Your task to perform on an android device: Play the new Beyonce video on YouTube Image 0: 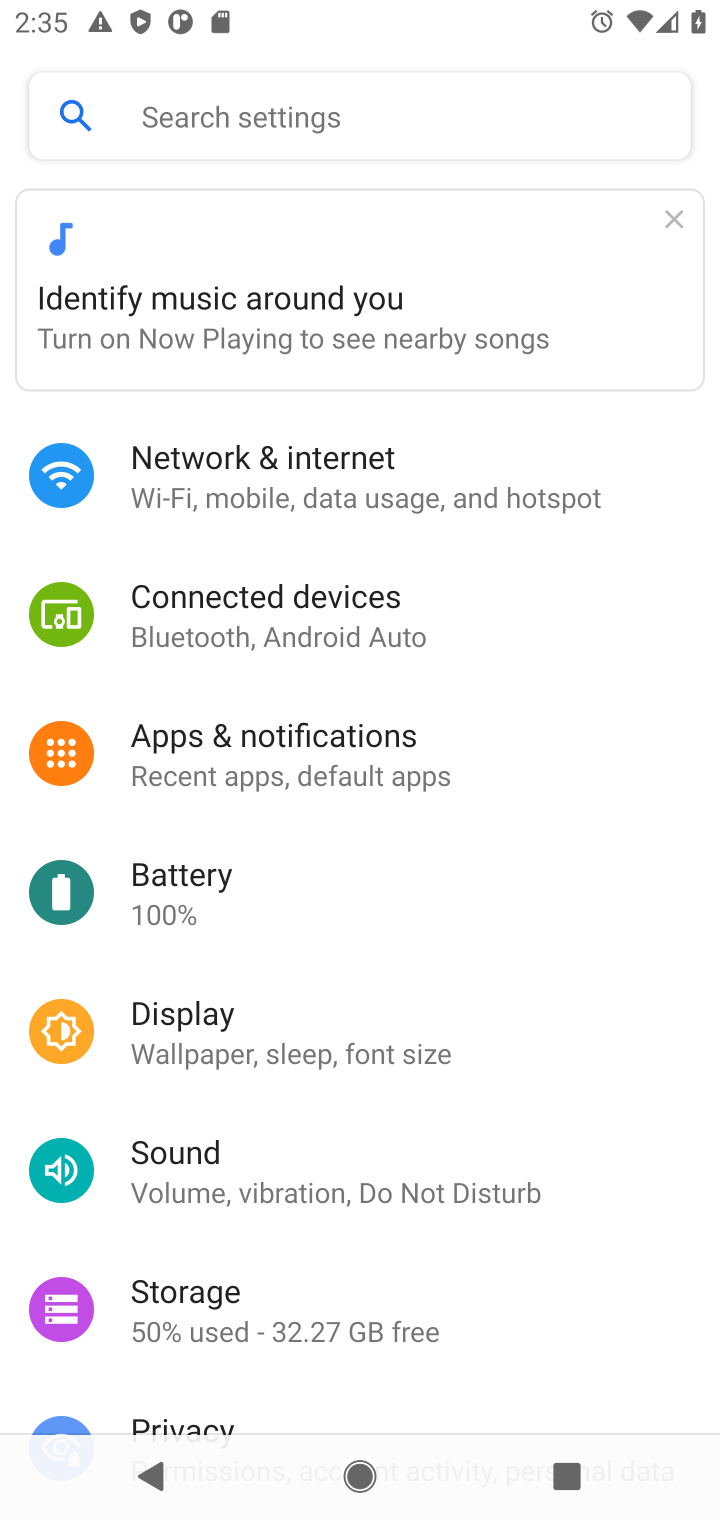
Step 0: press home button
Your task to perform on an android device: Play the new Beyonce video on YouTube Image 1: 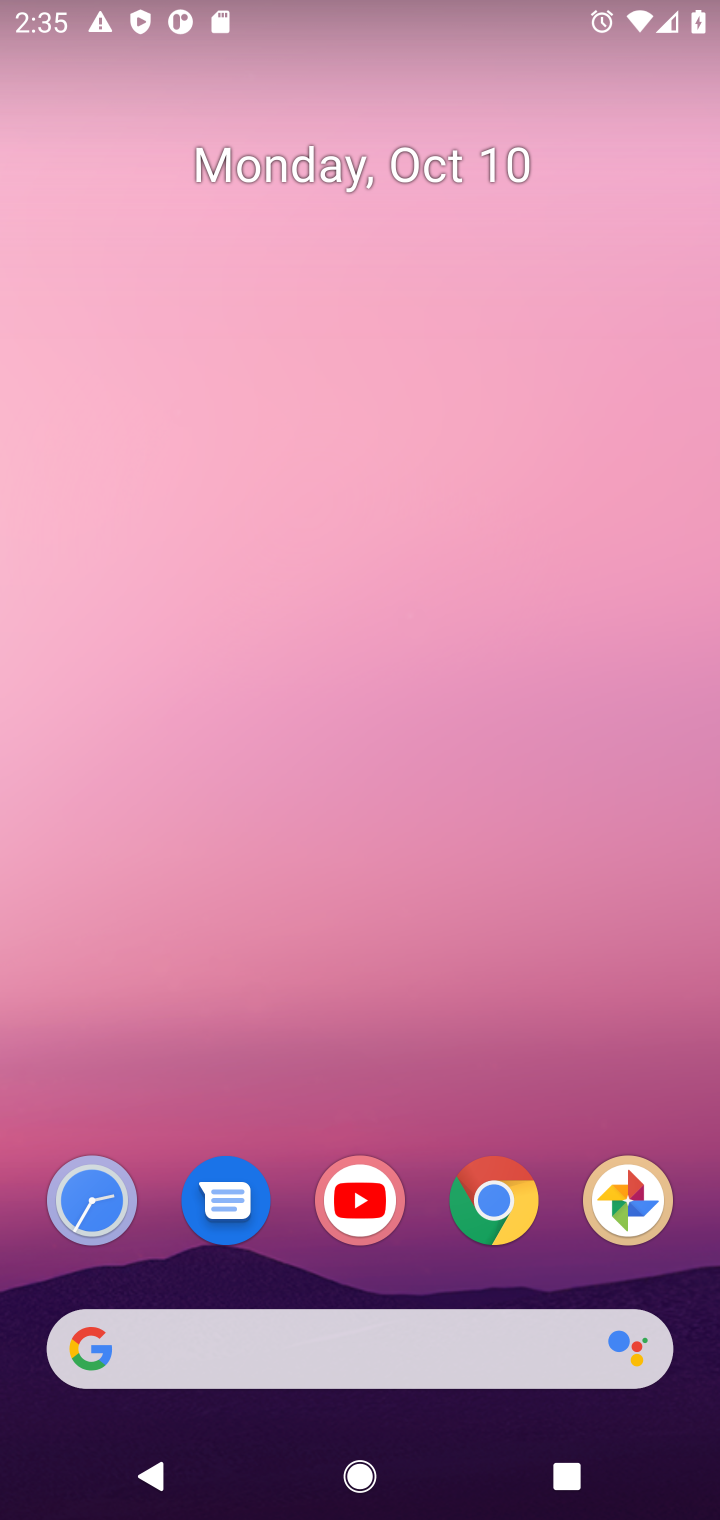
Step 1: click (493, 1209)
Your task to perform on an android device: Play the new Beyonce video on YouTube Image 2: 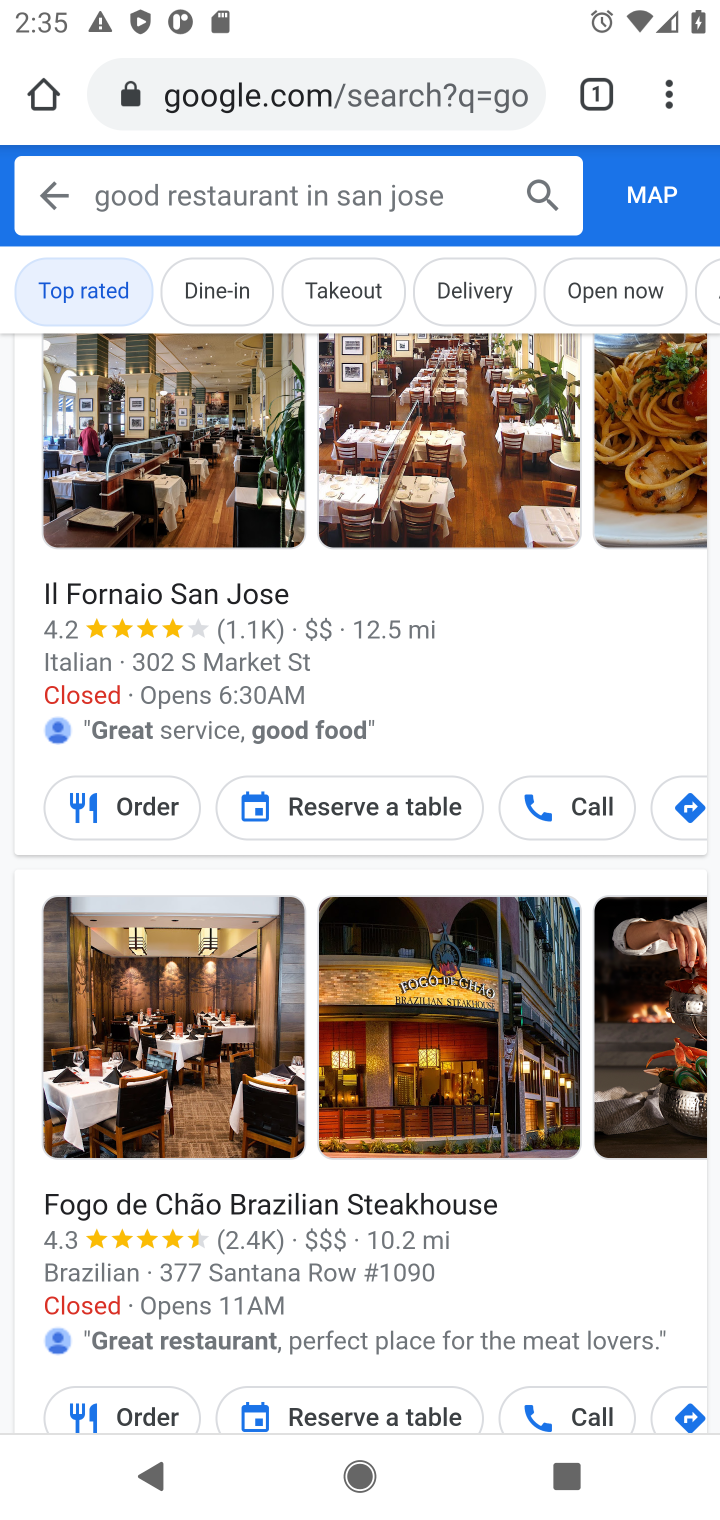
Step 2: click (377, 1471)
Your task to perform on an android device: Play the new Beyonce video on YouTube Image 3: 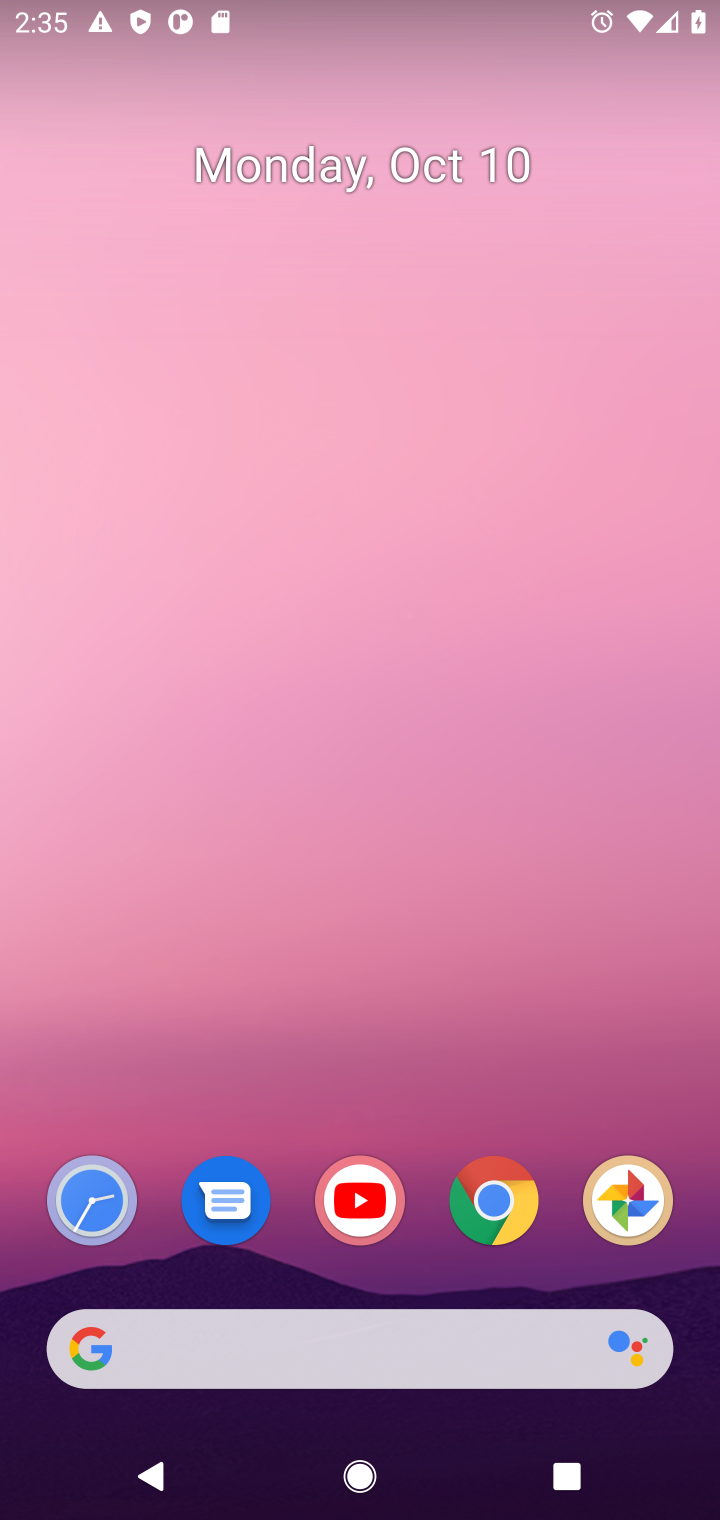
Step 3: click (367, 1189)
Your task to perform on an android device: Play the new Beyonce video on YouTube Image 4: 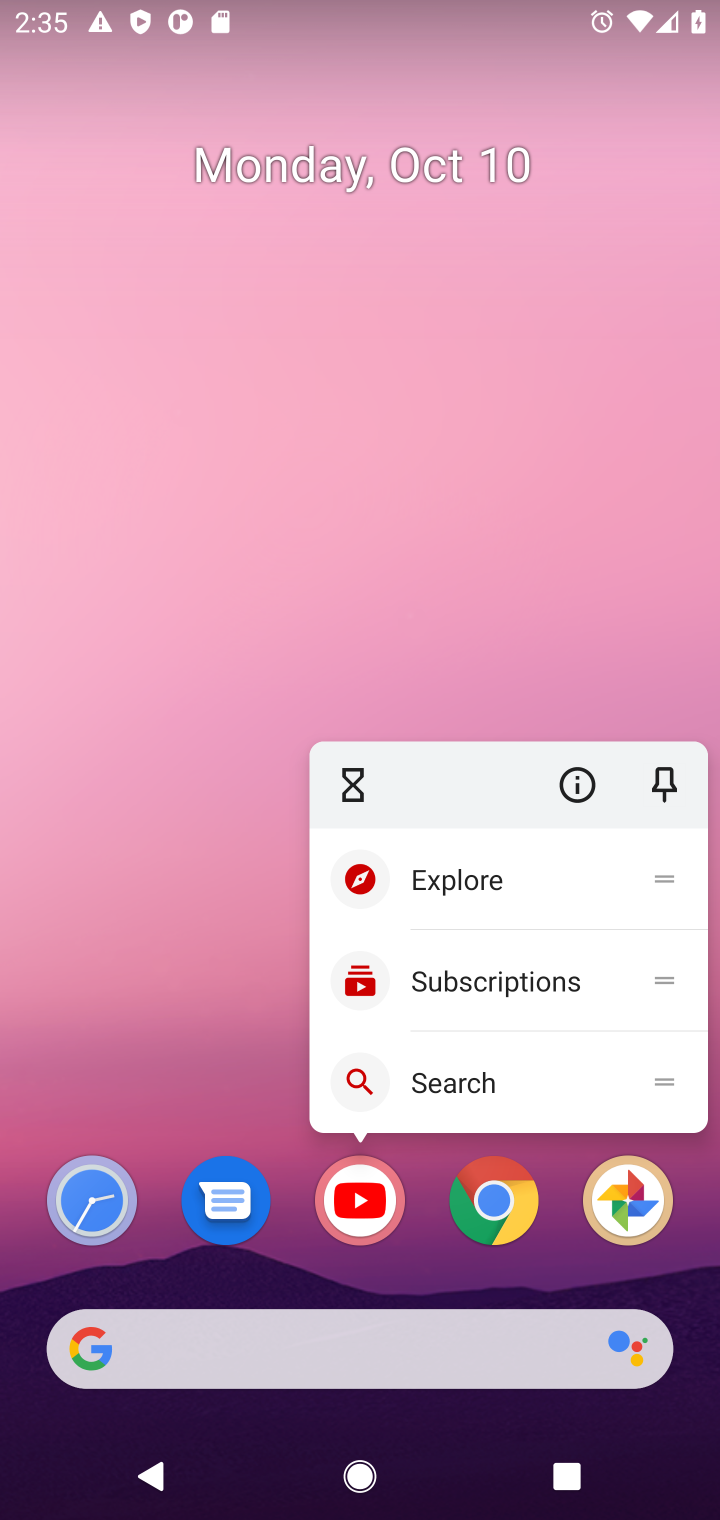
Step 4: click (361, 1215)
Your task to perform on an android device: Play the new Beyonce video on YouTube Image 5: 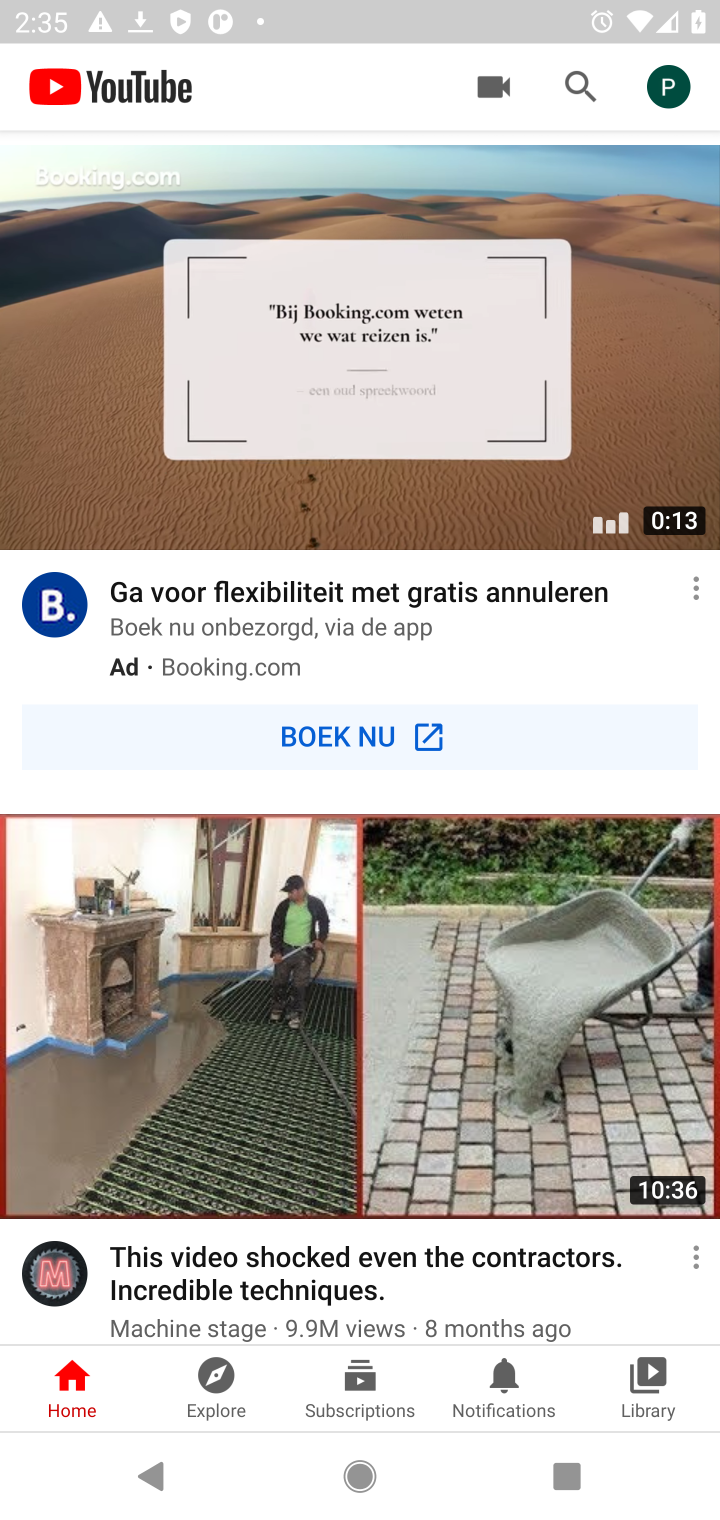
Step 5: click (567, 90)
Your task to perform on an android device: Play the new Beyonce video on YouTube Image 6: 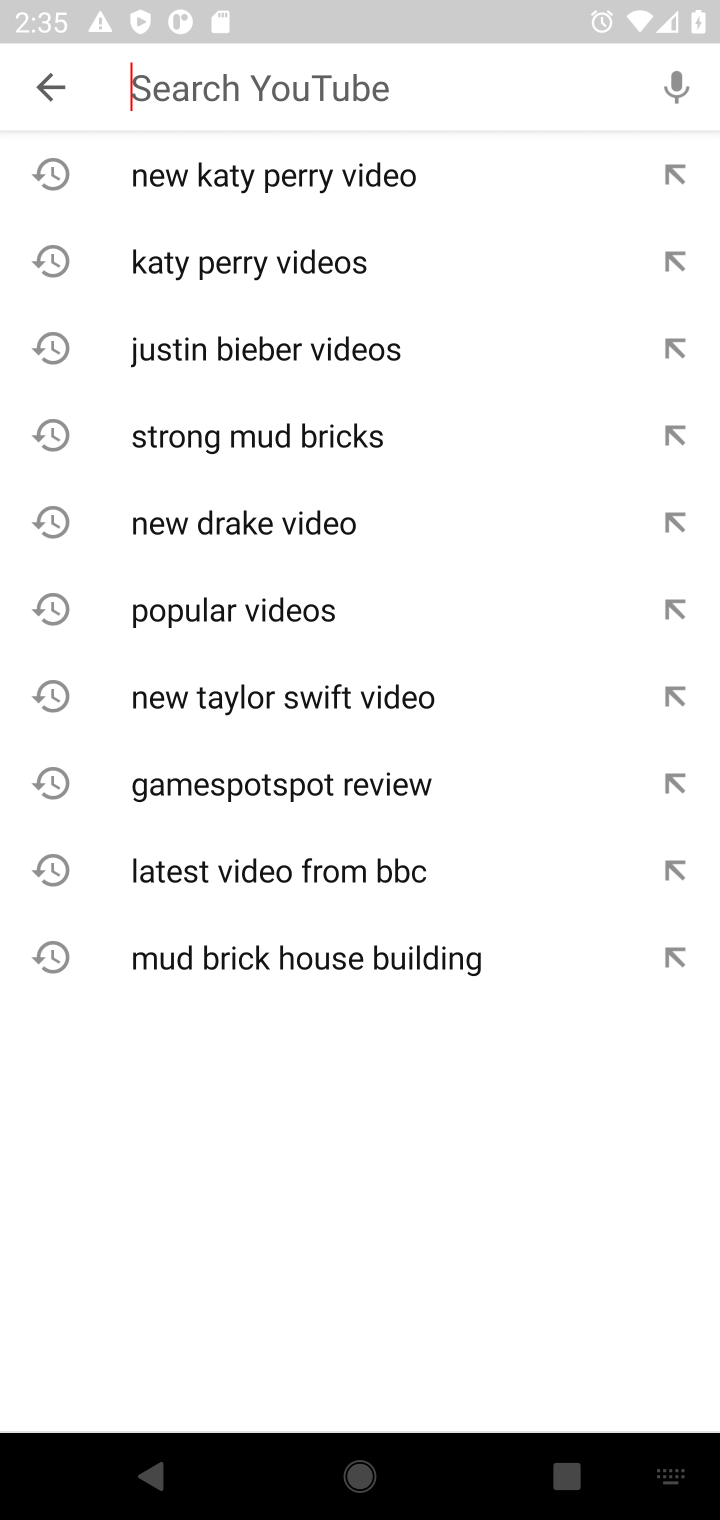
Step 6: type "new Beyonce video"
Your task to perform on an android device: Play the new Beyonce video on YouTube Image 7: 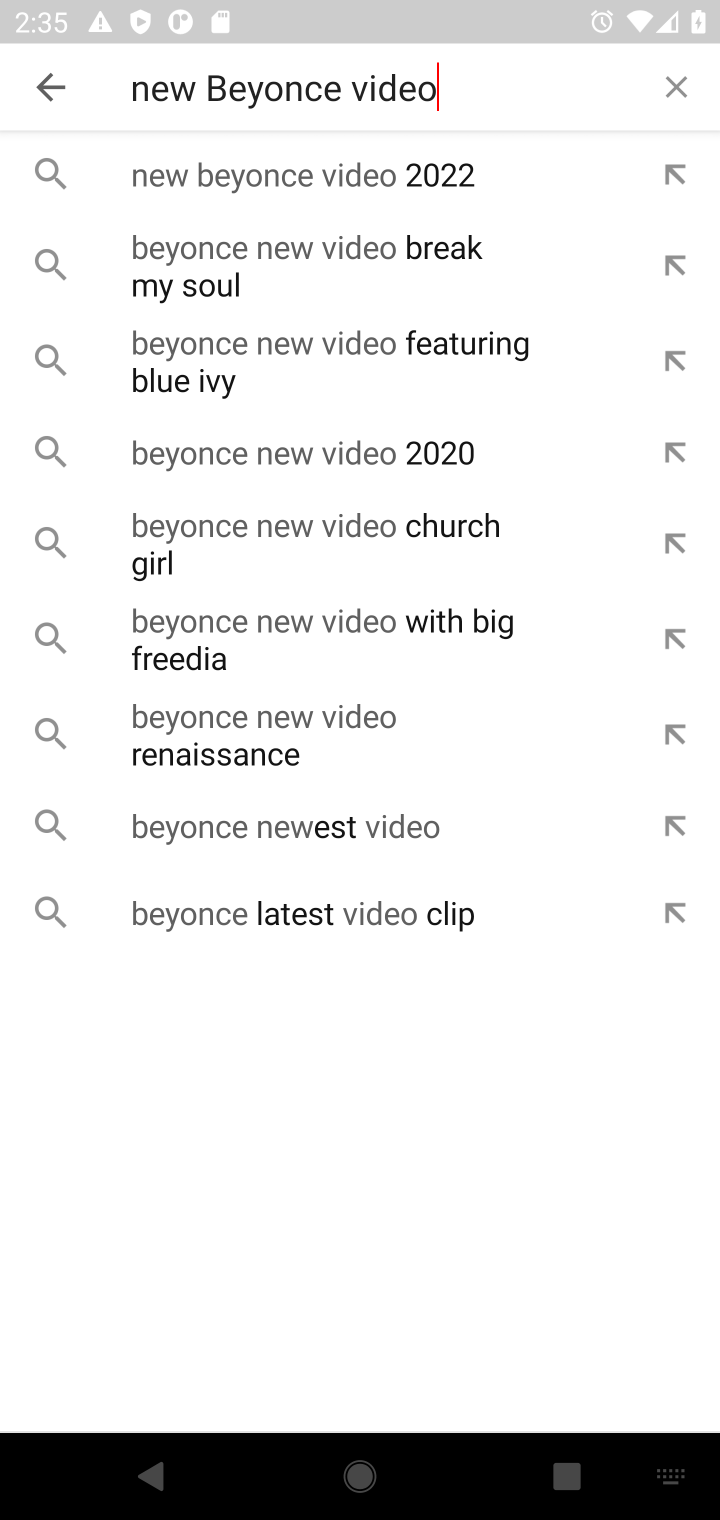
Step 7: press enter
Your task to perform on an android device: Play the new Beyonce video on YouTube Image 8: 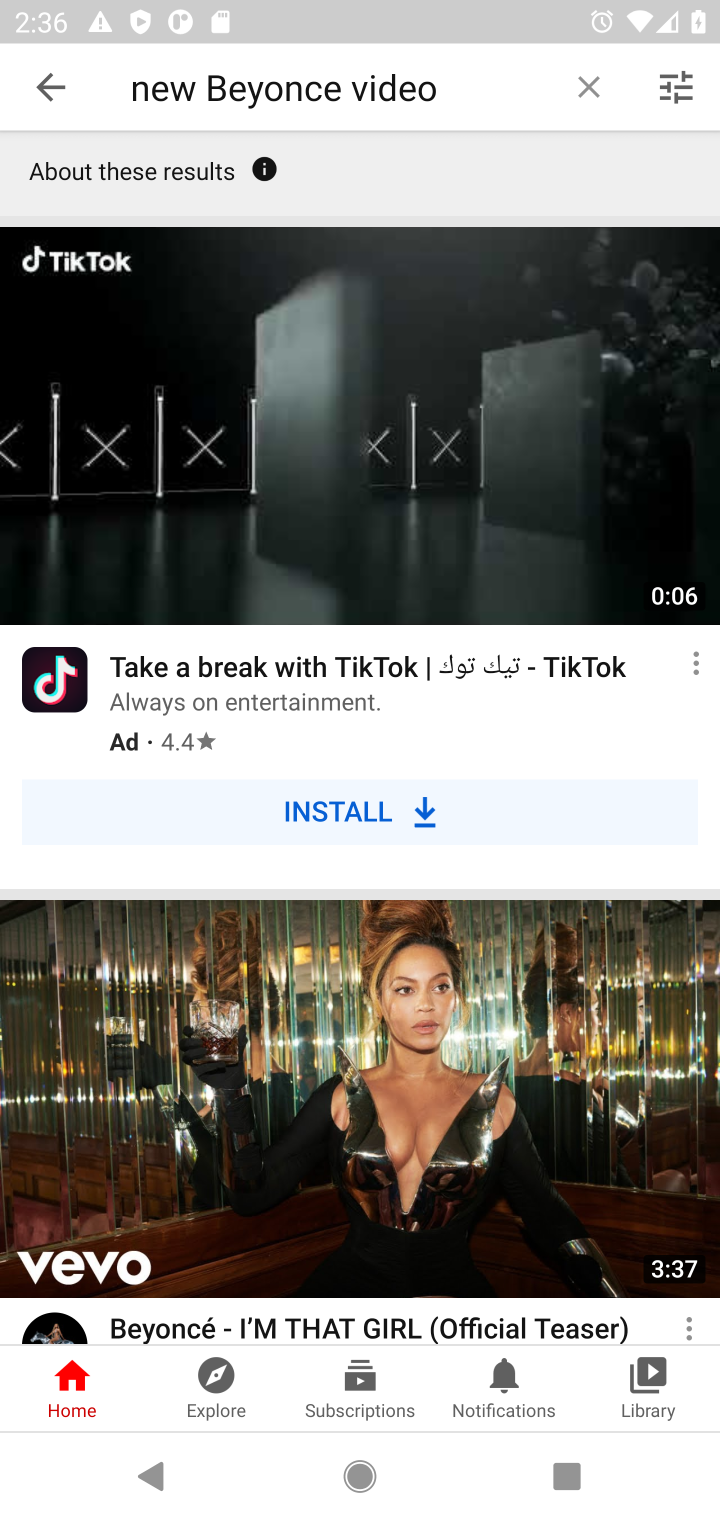
Step 8: drag from (535, 1321) to (516, 895)
Your task to perform on an android device: Play the new Beyonce video on YouTube Image 9: 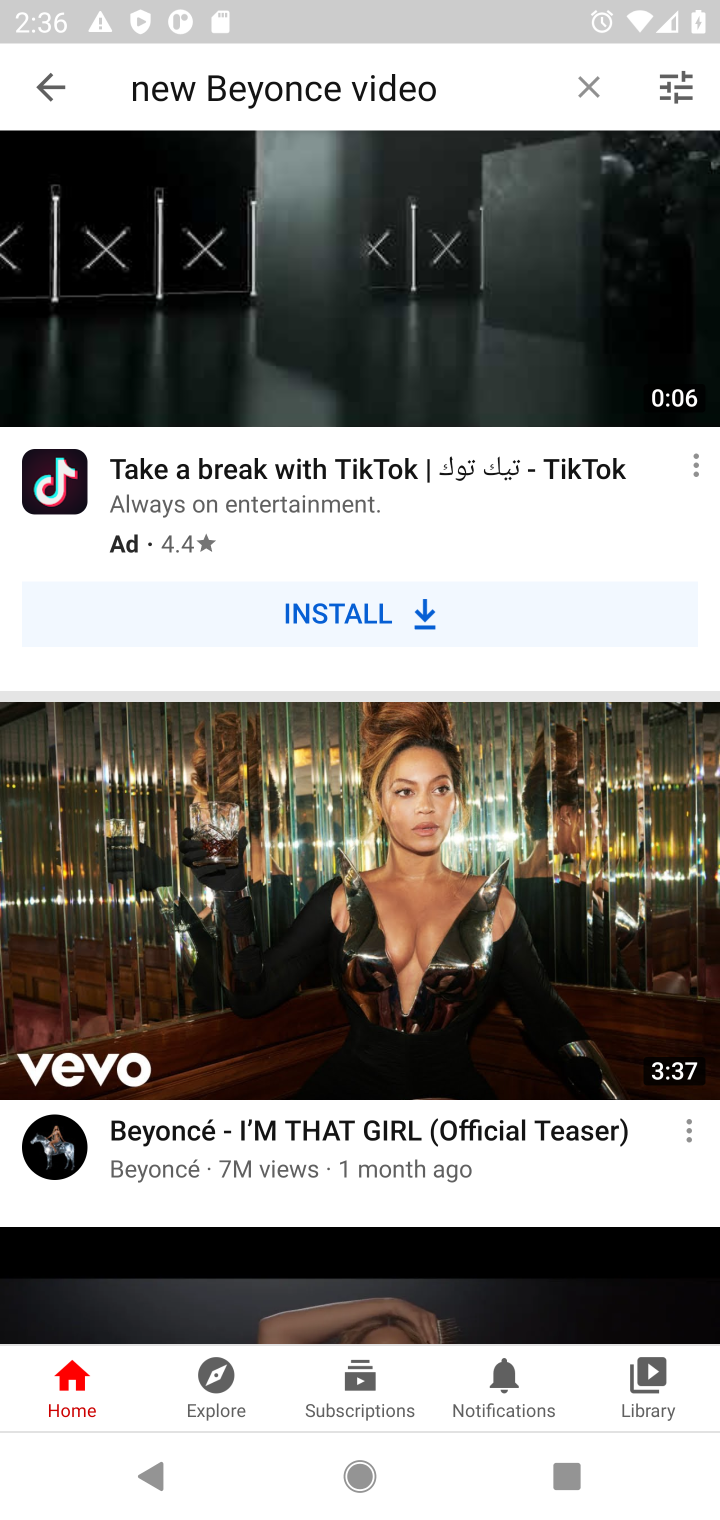
Step 9: click (275, 931)
Your task to perform on an android device: Play the new Beyonce video on YouTube Image 10: 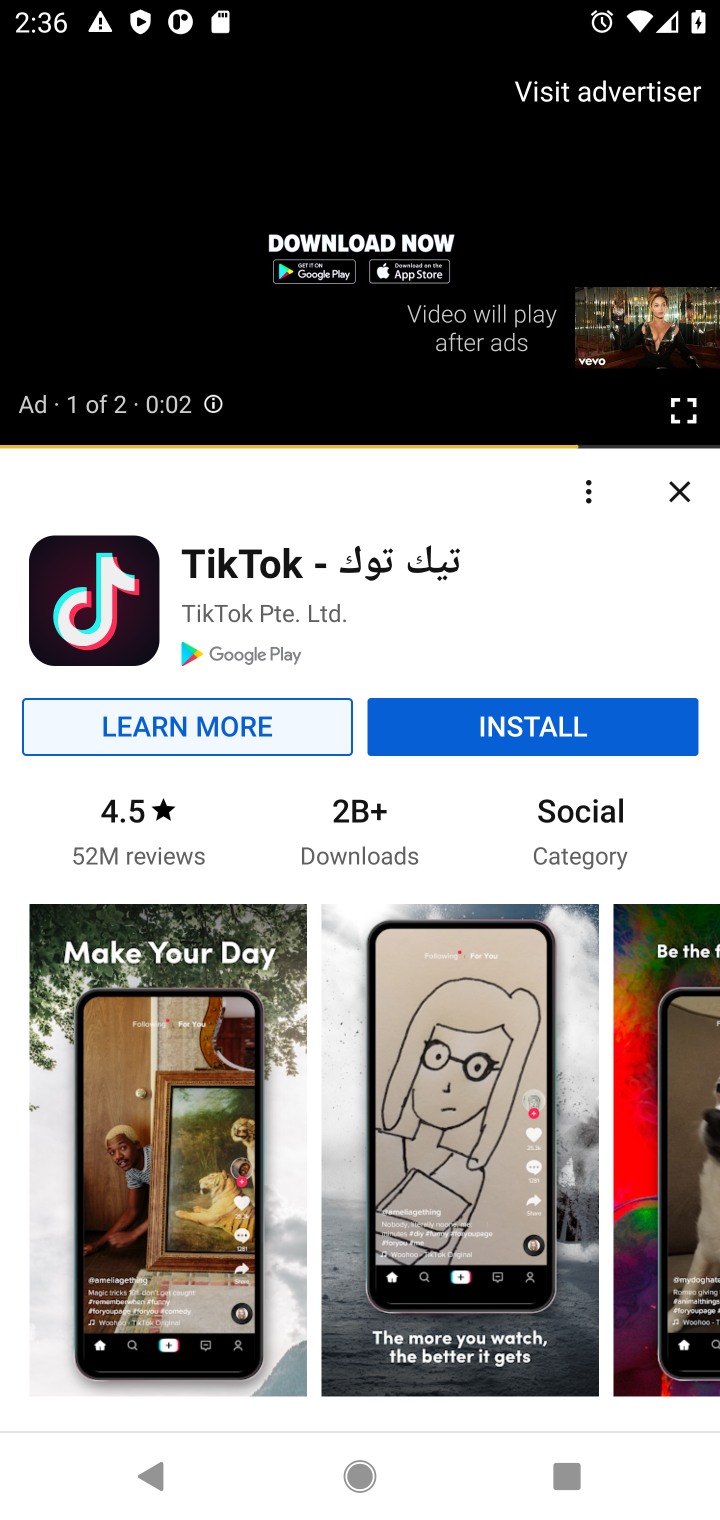
Step 10: click (686, 496)
Your task to perform on an android device: Play the new Beyonce video on YouTube Image 11: 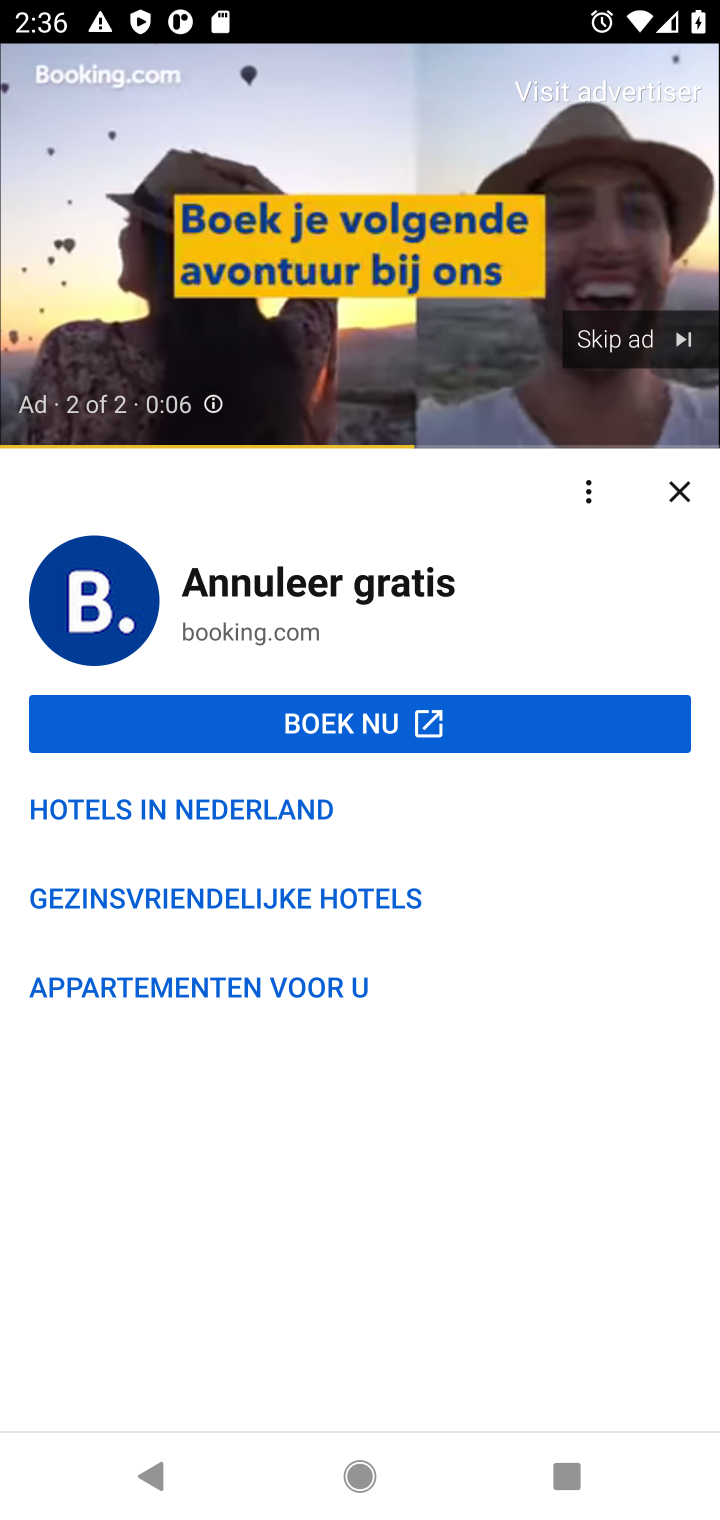
Step 11: click (642, 352)
Your task to perform on an android device: Play the new Beyonce video on YouTube Image 12: 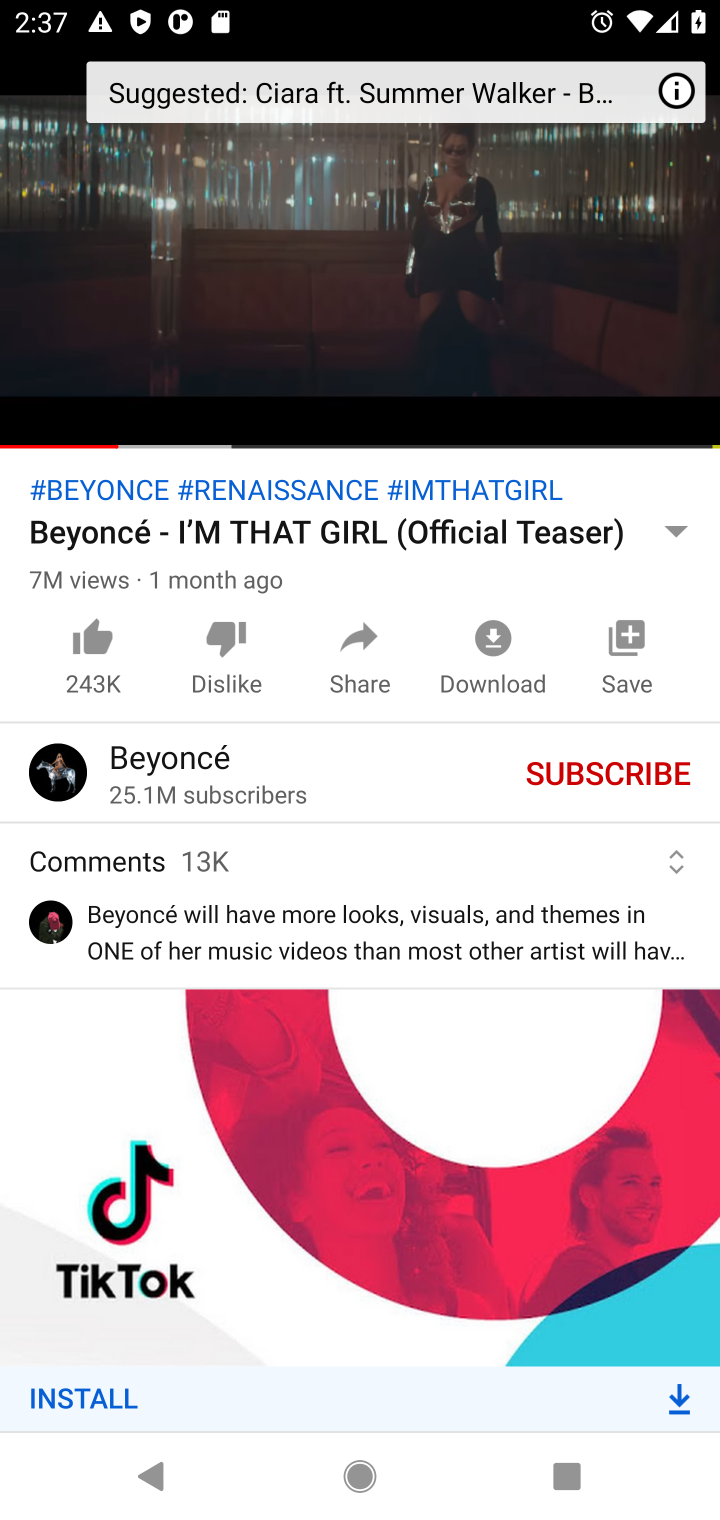
Step 12: task complete